Your task to perform on an android device: change the clock display to show seconds Image 0: 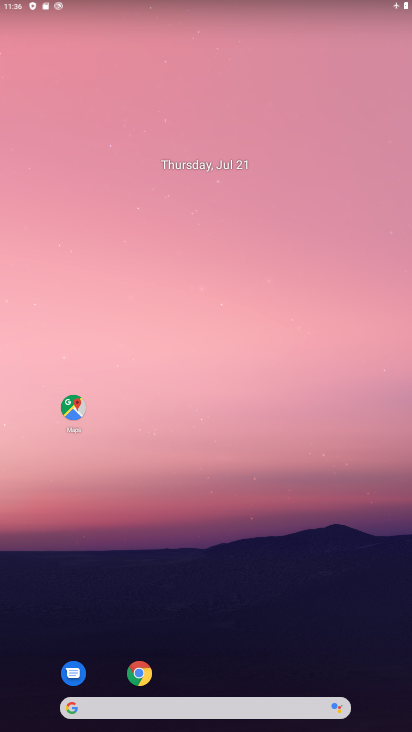
Step 0: drag from (193, 650) to (185, 110)
Your task to perform on an android device: change the clock display to show seconds Image 1: 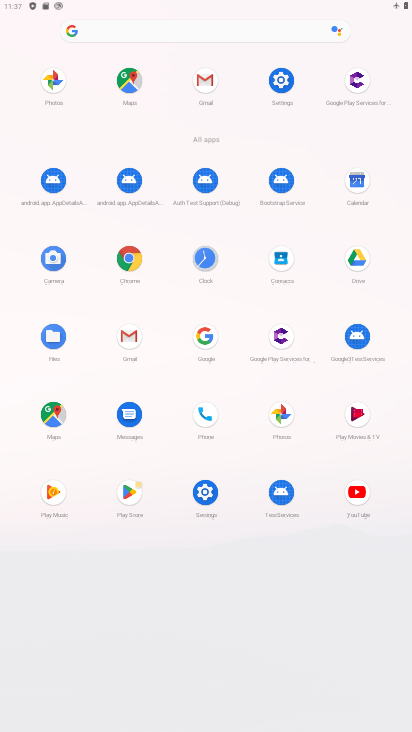
Step 1: click (196, 259)
Your task to perform on an android device: change the clock display to show seconds Image 2: 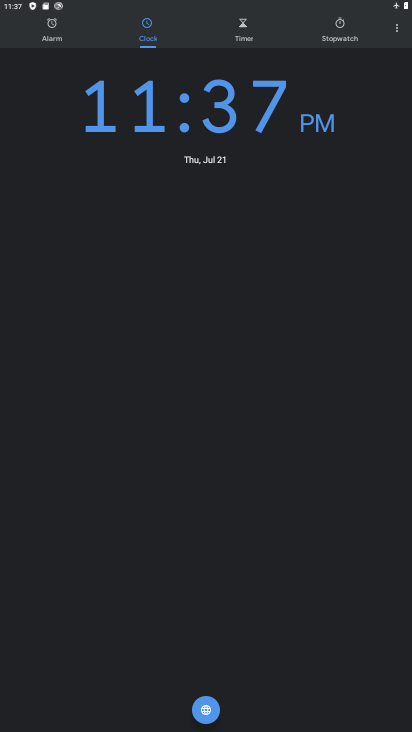
Step 2: drag from (392, 28) to (358, 54)
Your task to perform on an android device: change the clock display to show seconds Image 3: 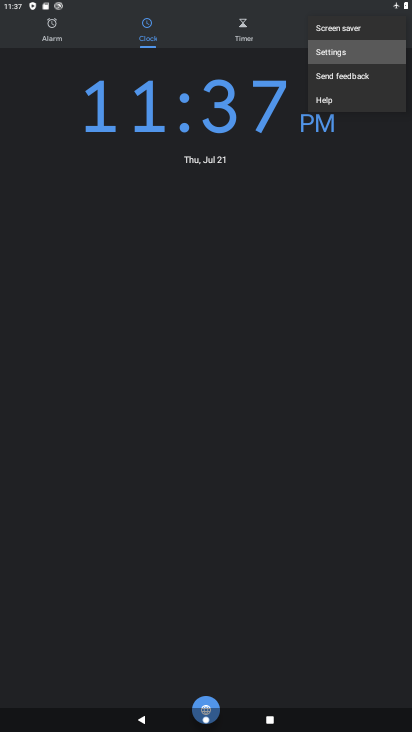
Step 3: click (358, 54)
Your task to perform on an android device: change the clock display to show seconds Image 4: 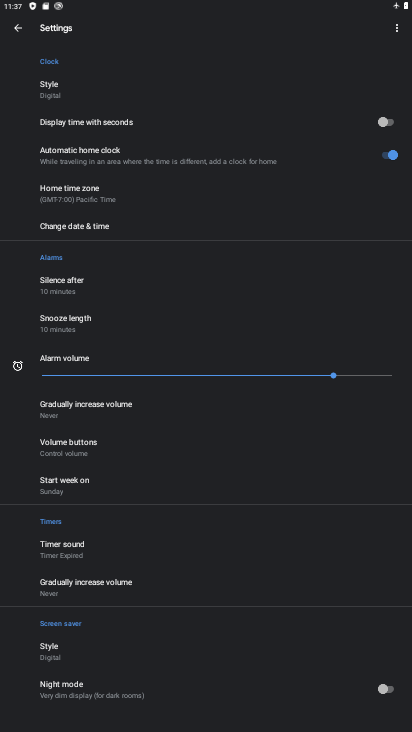
Step 4: click (376, 121)
Your task to perform on an android device: change the clock display to show seconds Image 5: 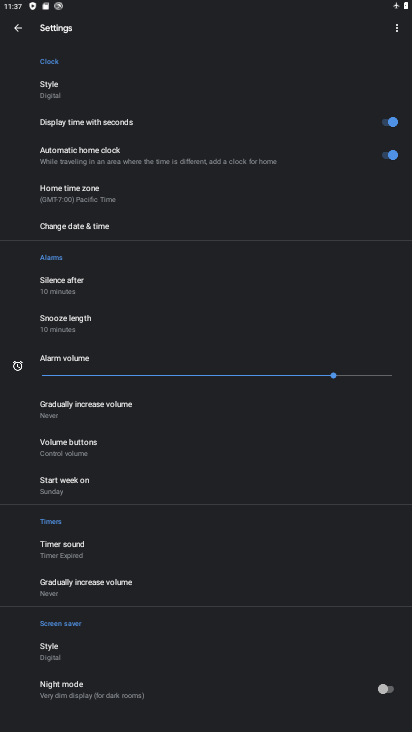
Step 5: task complete